Your task to perform on an android device: toggle pop-ups in chrome Image 0: 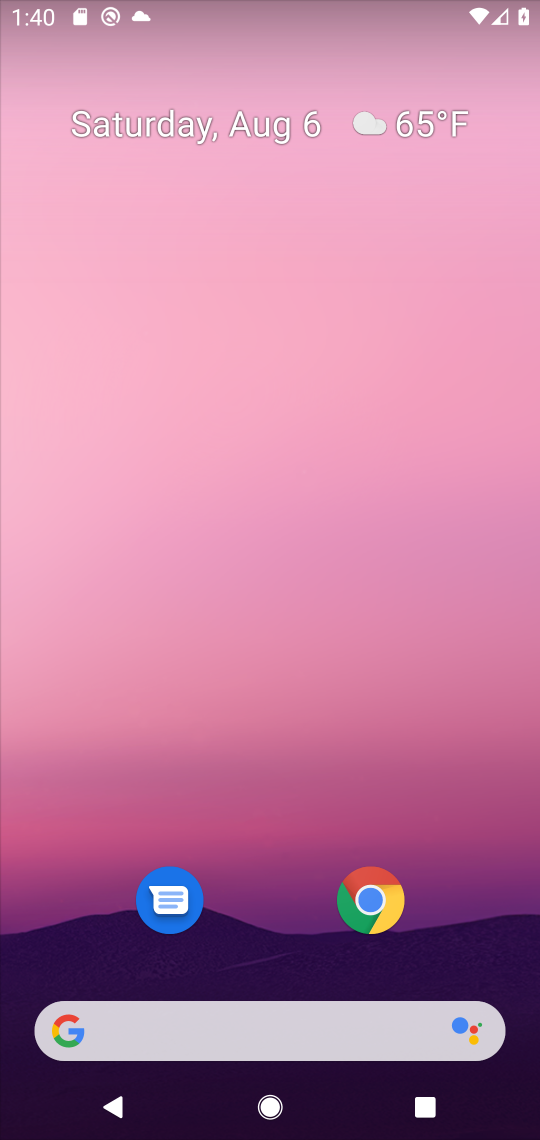
Step 0: click (371, 911)
Your task to perform on an android device: toggle pop-ups in chrome Image 1: 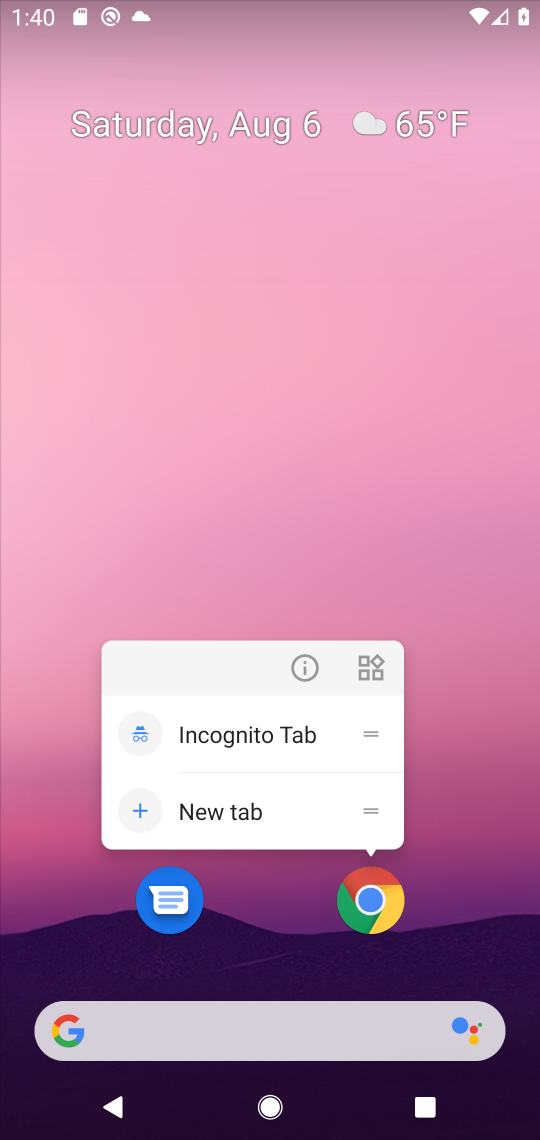
Step 1: click (371, 911)
Your task to perform on an android device: toggle pop-ups in chrome Image 2: 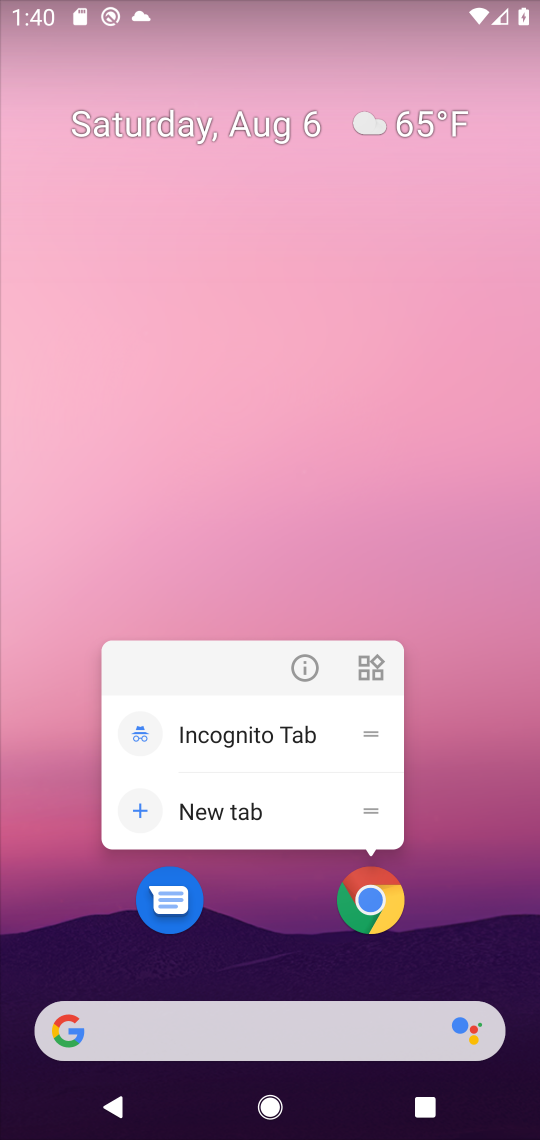
Step 2: click (371, 911)
Your task to perform on an android device: toggle pop-ups in chrome Image 3: 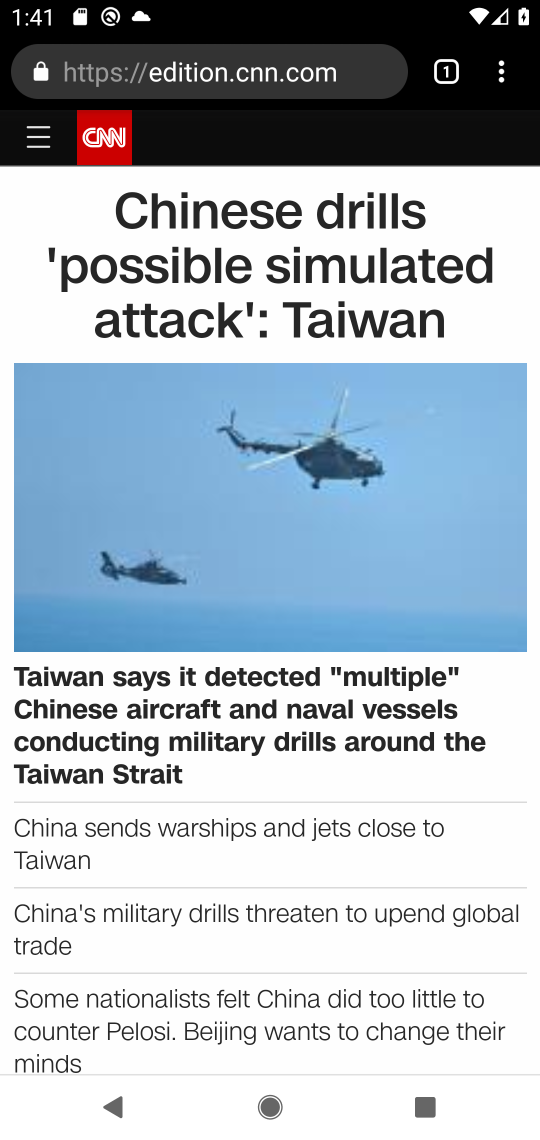
Step 3: click (496, 64)
Your task to perform on an android device: toggle pop-ups in chrome Image 4: 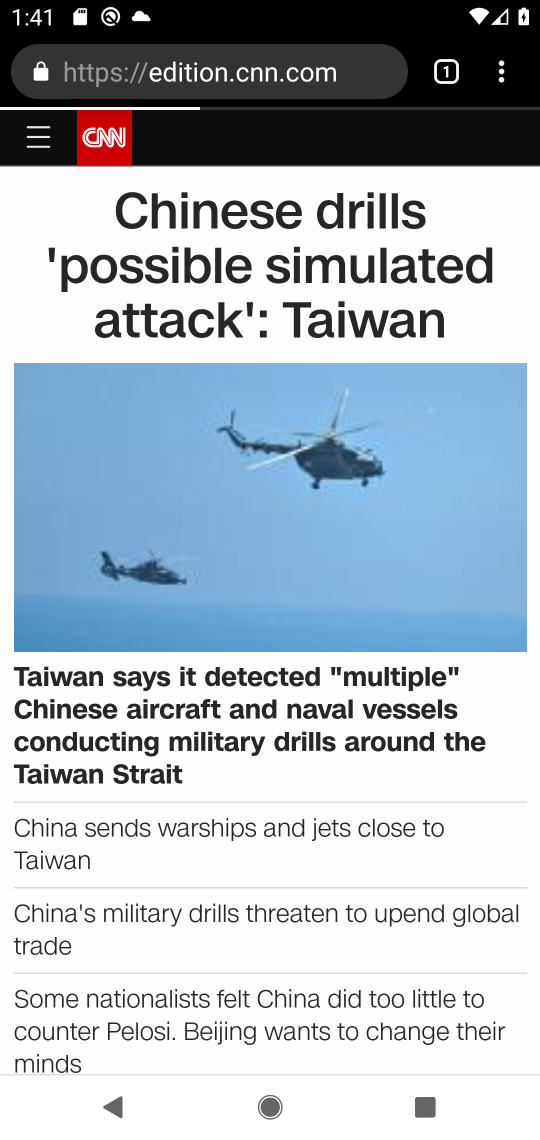
Step 4: drag from (494, 73) to (242, 870)
Your task to perform on an android device: toggle pop-ups in chrome Image 5: 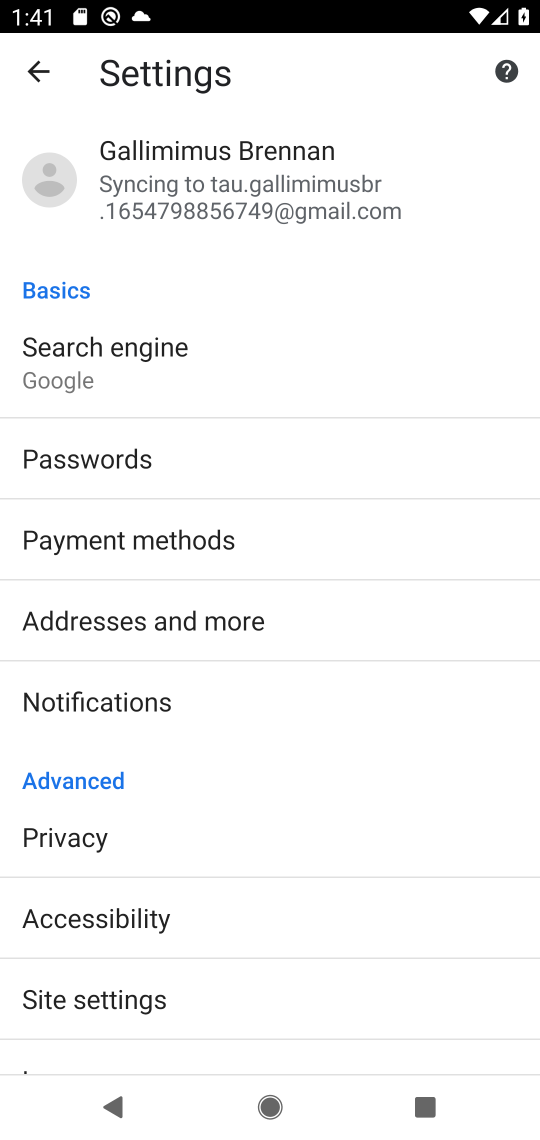
Step 5: drag from (193, 783) to (217, 264)
Your task to perform on an android device: toggle pop-ups in chrome Image 6: 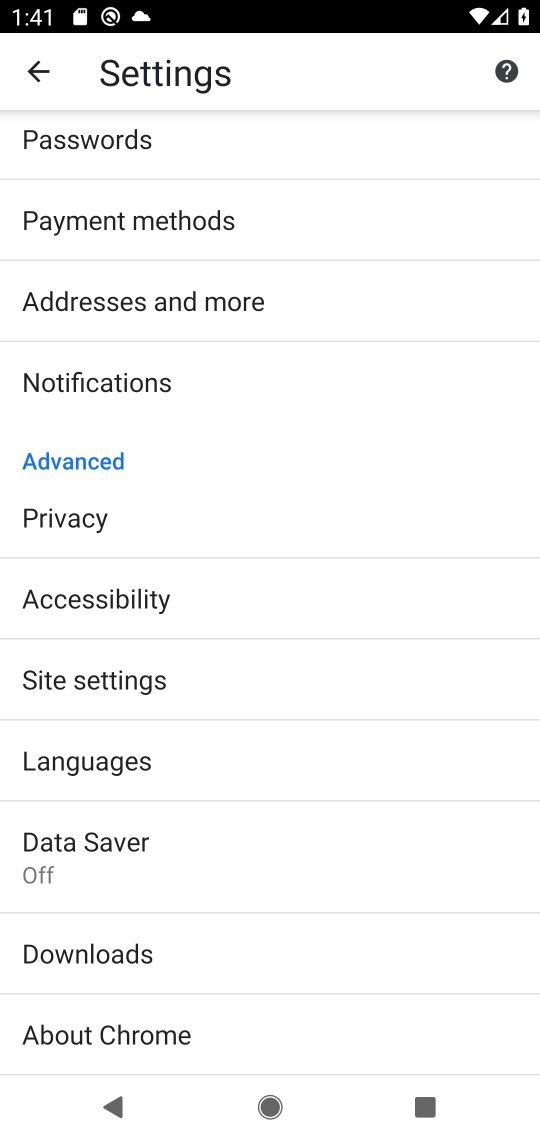
Step 6: click (156, 657)
Your task to perform on an android device: toggle pop-ups in chrome Image 7: 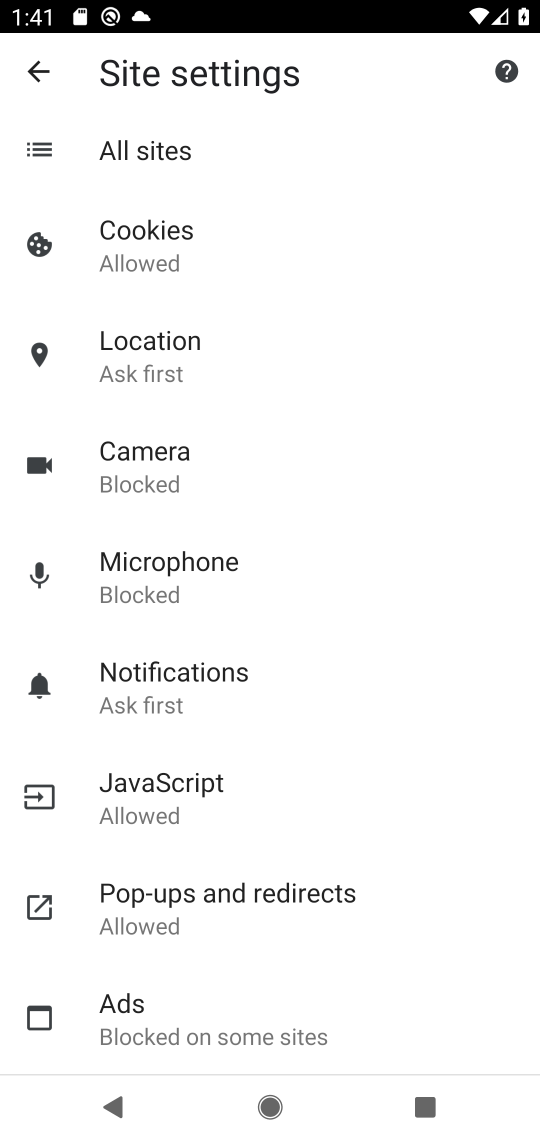
Step 7: click (219, 896)
Your task to perform on an android device: toggle pop-ups in chrome Image 8: 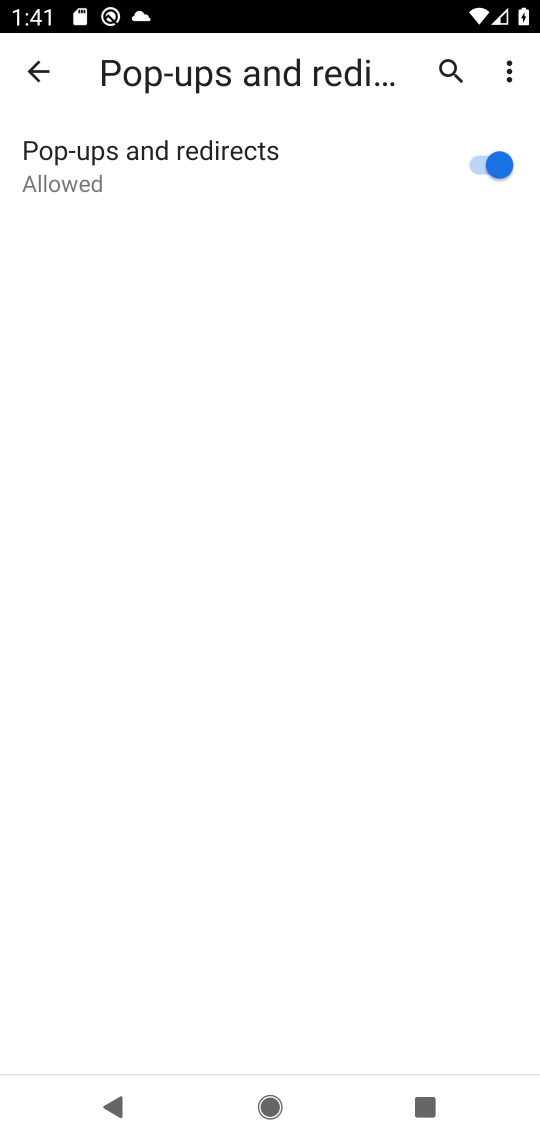
Step 8: click (491, 162)
Your task to perform on an android device: toggle pop-ups in chrome Image 9: 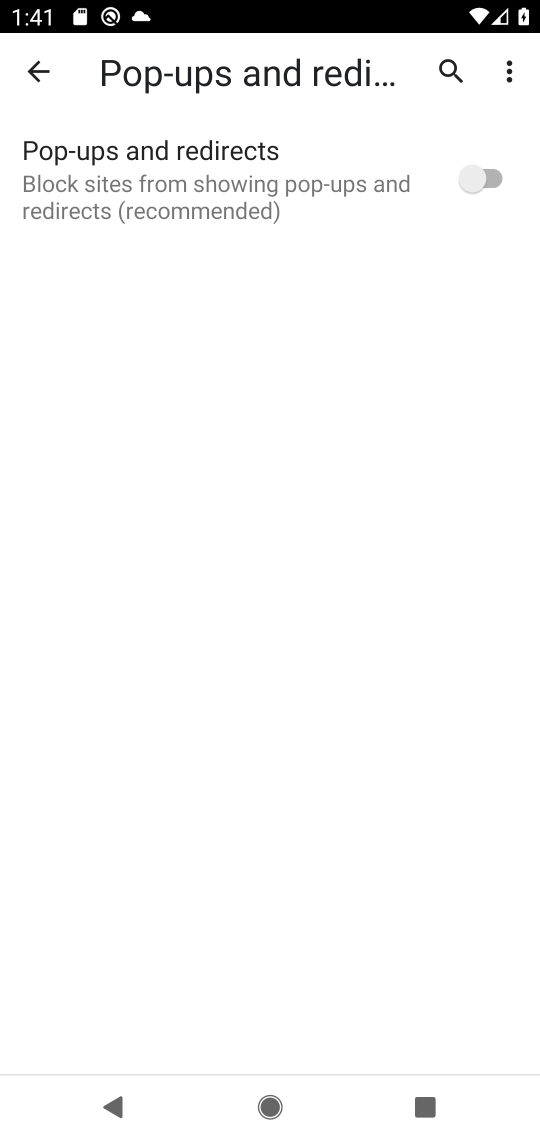
Step 9: task complete